Your task to perform on an android device: open app "Indeed Job Search" Image 0: 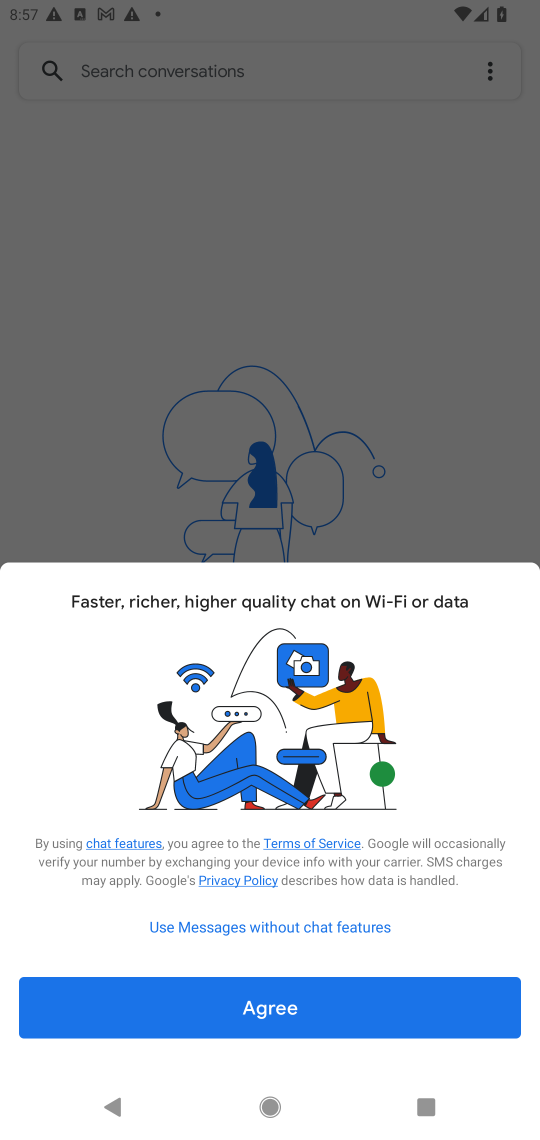
Step 0: press back button
Your task to perform on an android device: open app "Indeed Job Search" Image 1: 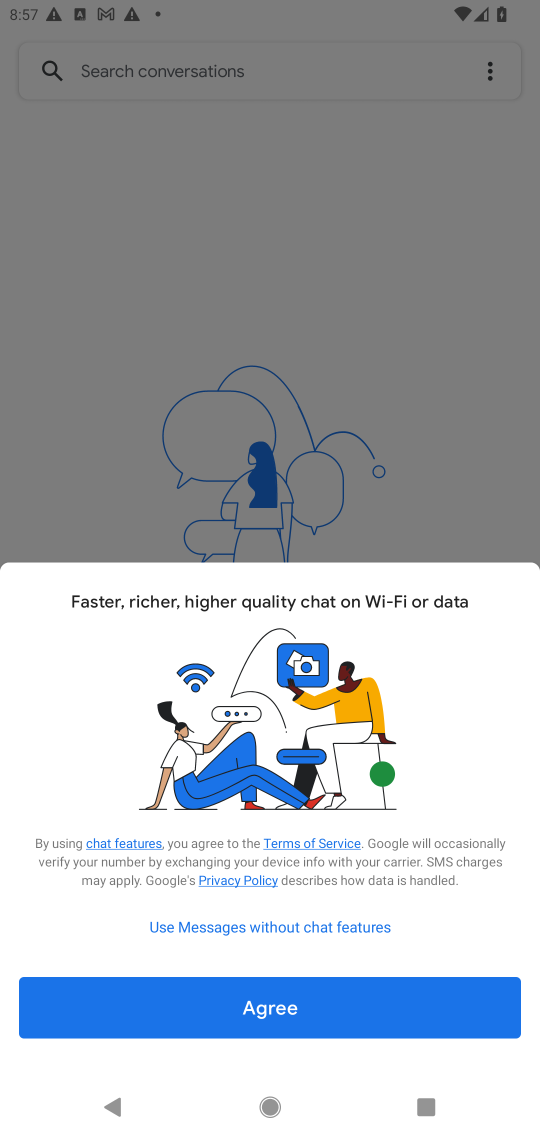
Step 1: press home button
Your task to perform on an android device: open app "Indeed Job Search" Image 2: 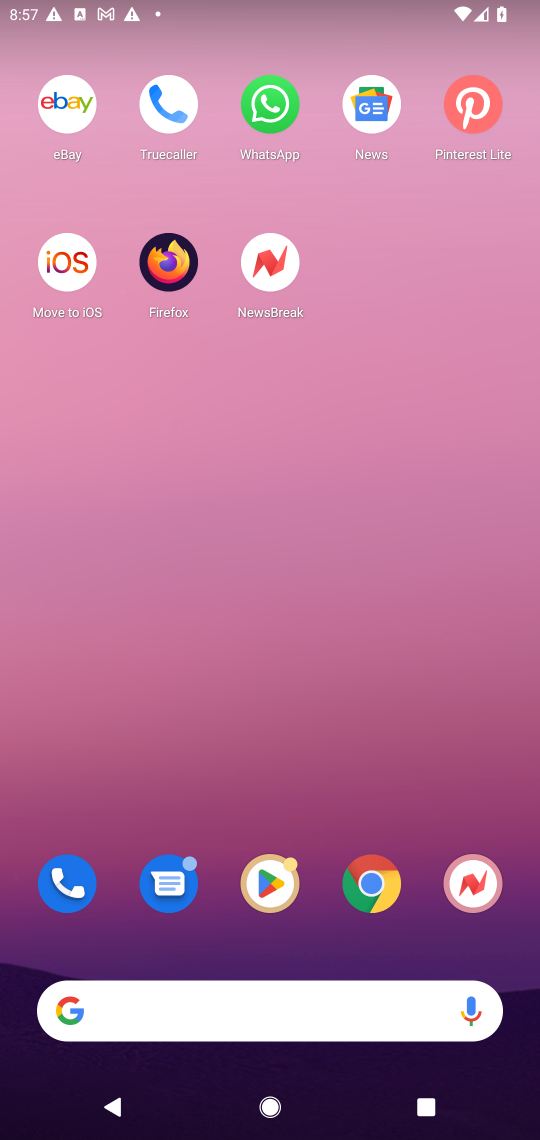
Step 2: click (255, 880)
Your task to perform on an android device: open app "Indeed Job Search" Image 3: 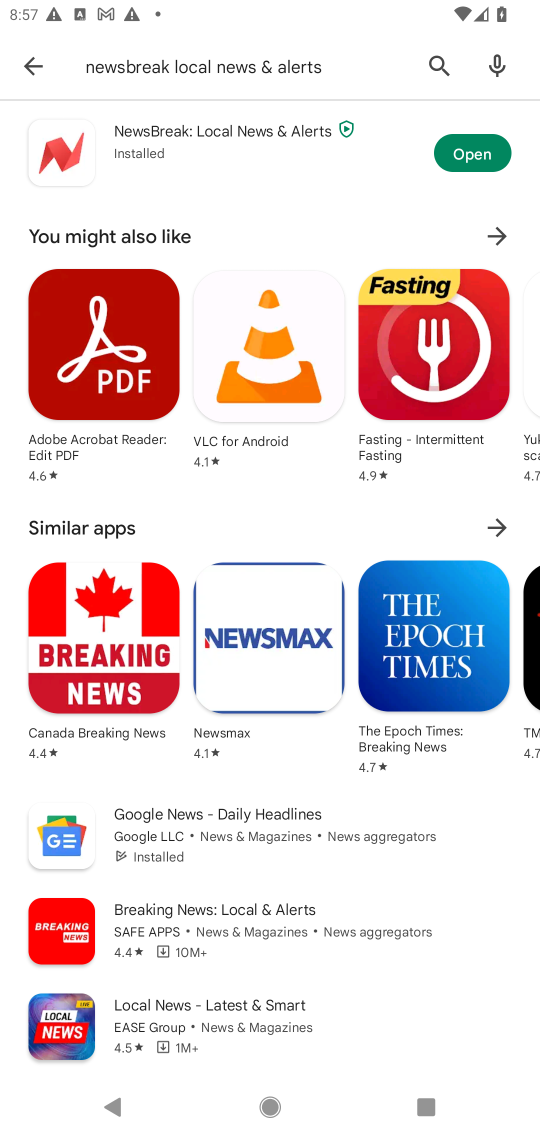
Step 3: click (433, 65)
Your task to perform on an android device: open app "Indeed Job Search" Image 4: 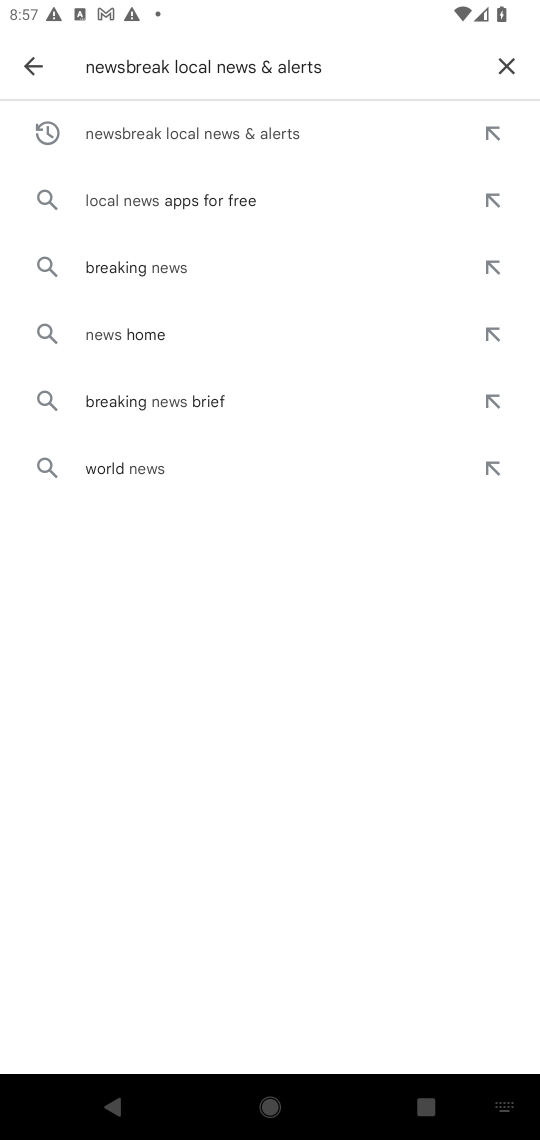
Step 4: click (498, 65)
Your task to perform on an android device: open app "Indeed Job Search" Image 5: 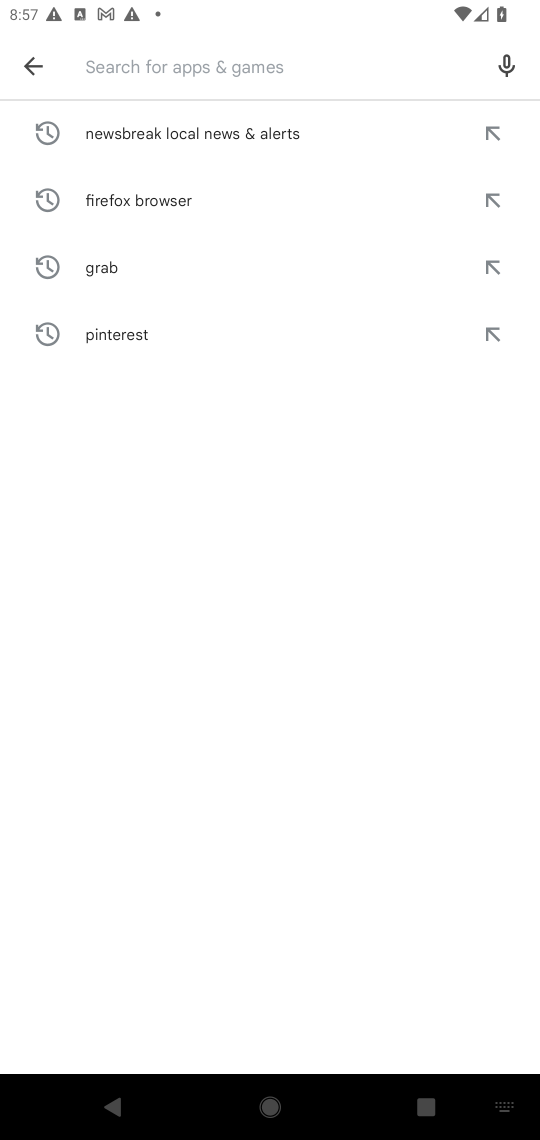
Step 5: type "Indeed Job Search"
Your task to perform on an android device: open app "Indeed Job Search" Image 6: 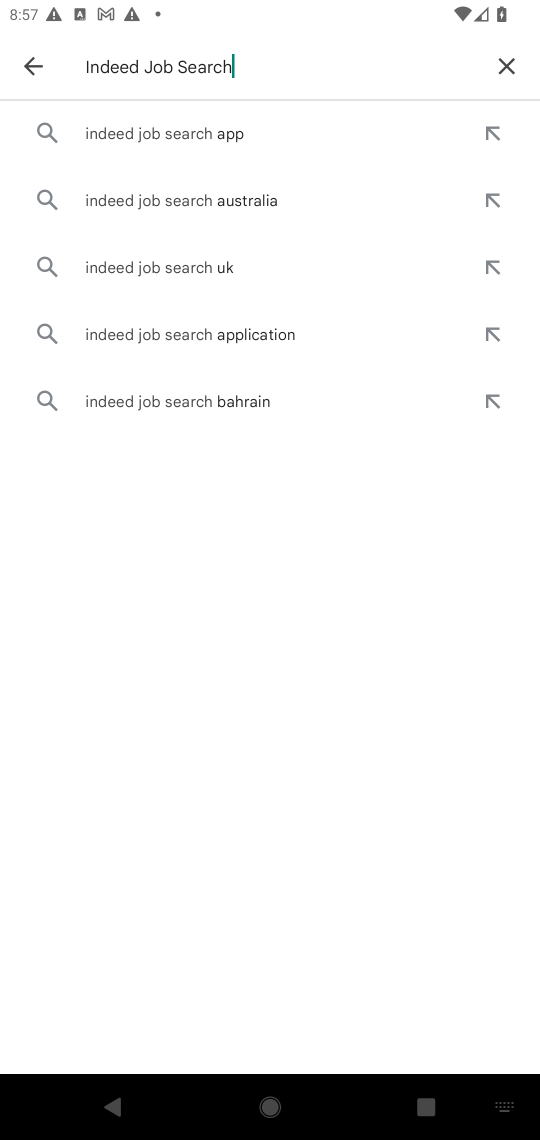
Step 6: click (262, 140)
Your task to perform on an android device: open app "Indeed Job Search" Image 7: 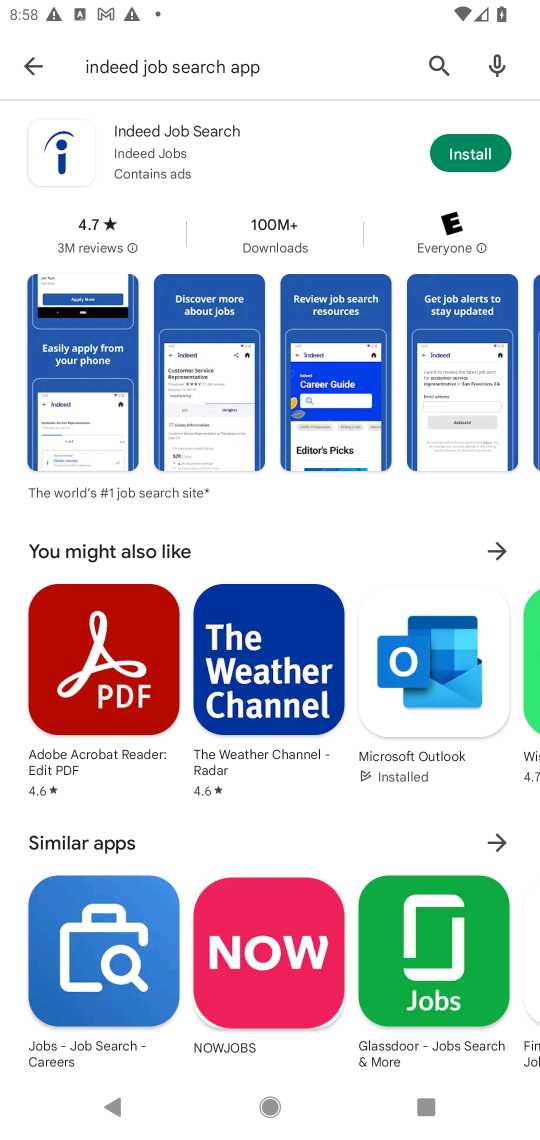
Step 7: task complete